Your task to perform on an android device: Search for lg ultragear on newegg.com, select the first entry, and add it to the cart. Image 0: 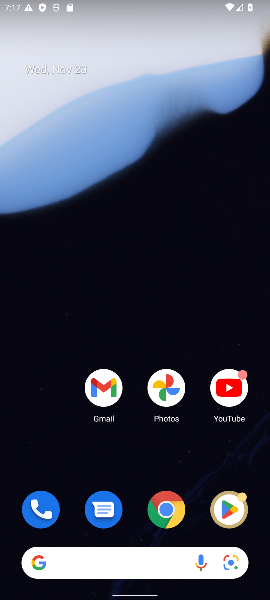
Step 0: click (170, 519)
Your task to perform on an android device: Search for lg ultragear on newegg.com, select the first entry, and add it to the cart. Image 1: 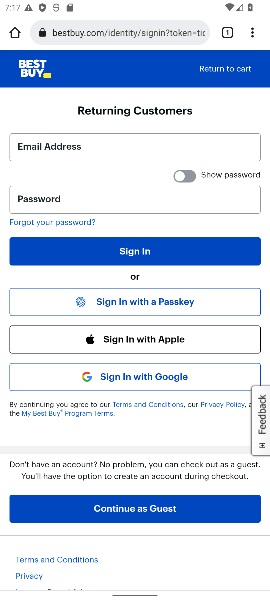
Step 1: click (127, 38)
Your task to perform on an android device: Search for lg ultragear on newegg.com, select the first entry, and add it to the cart. Image 2: 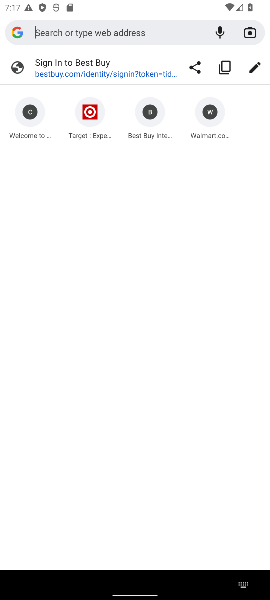
Step 2: type "newegg.com"
Your task to perform on an android device: Search for lg ultragear on newegg.com, select the first entry, and add it to the cart. Image 3: 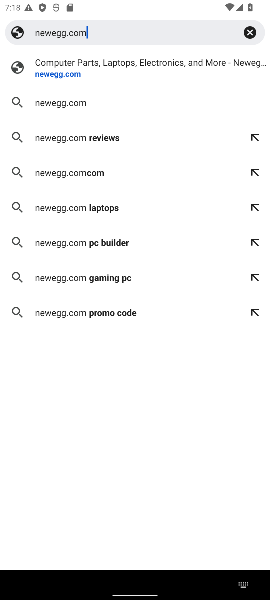
Step 3: click (106, 69)
Your task to perform on an android device: Search for lg ultragear on newegg.com, select the first entry, and add it to the cart. Image 4: 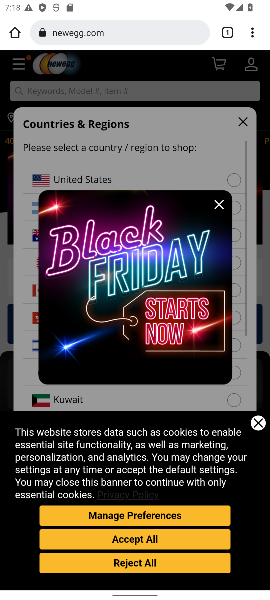
Step 4: click (259, 427)
Your task to perform on an android device: Search for lg ultragear on newegg.com, select the first entry, and add it to the cart. Image 5: 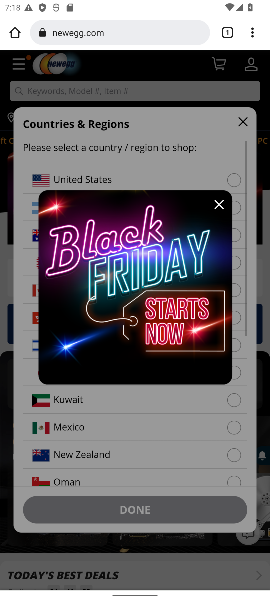
Step 5: click (220, 205)
Your task to perform on an android device: Search for lg ultragear on newegg.com, select the first entry, and add it to the cart. Image 6: 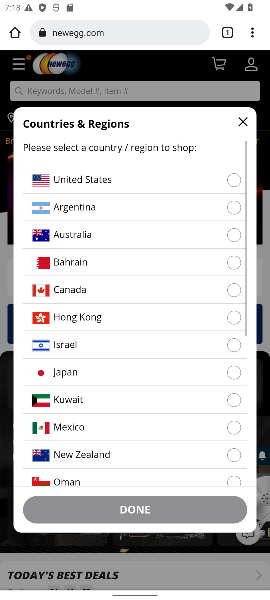
Step 6: click (243, 117)
Your task to perform on an android device: Search for lg ultragear on newegg.com, select the first entry, and add it to the cart. Image 7: 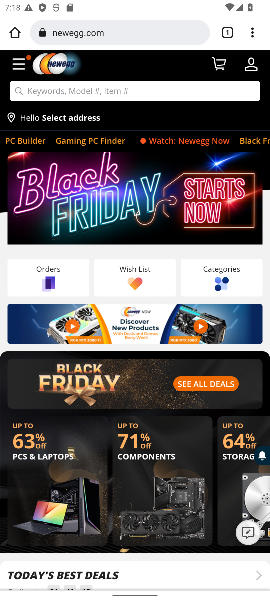
Step 7: click (174, 88)
Your task to perform on an android device: Search for lg ultragear on newegg.com, select the first entry, and add it to the cart. Image 8: 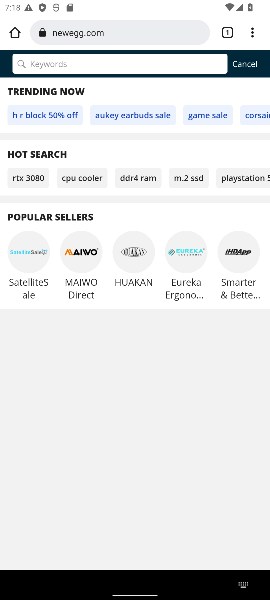
Step 8: type "lg ultragear"
Your task to perform on an android device: Search for lg ultragear on newegg.com, select the first entry, and add it to the cart. Image 9: 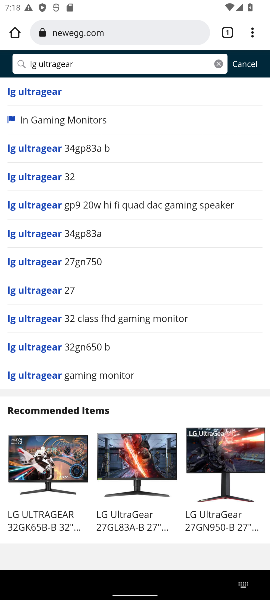
Step 9: click (44, 92)
Your task to perform on an android device: Search for lg ultragear on newegg.com, select the first entry, and add it to the cart. Image 10: 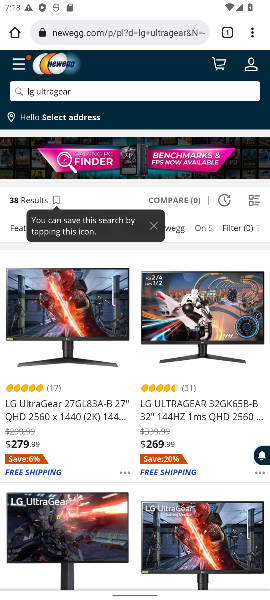
Step 10: click (84, 416)
Your task to perform on an android device: Search for lg ultragear on newegg.com, select the first entry, and add it to the cart. Image 11: 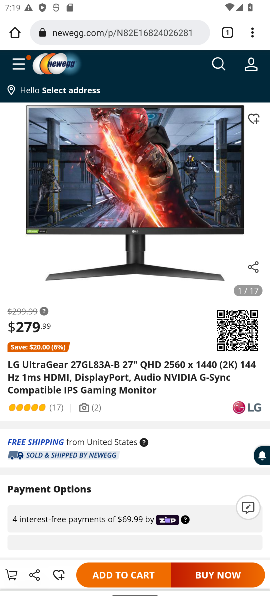
Step 11: click (122, 578)
Your task to perform on an android device: Search for lg ultragear on newegg.com, select the first entry, and add it to the cart. Image 12: 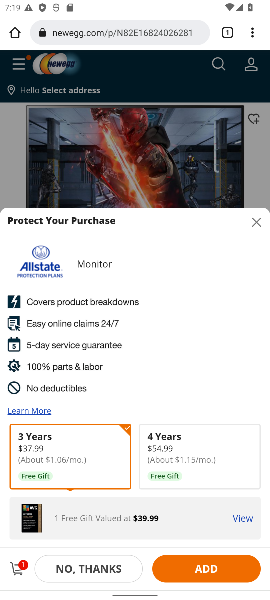
Step 12: task complete